Your task to perform on an android device: Open Google Chrome and click the shortcut for Amazon.com Image 0: 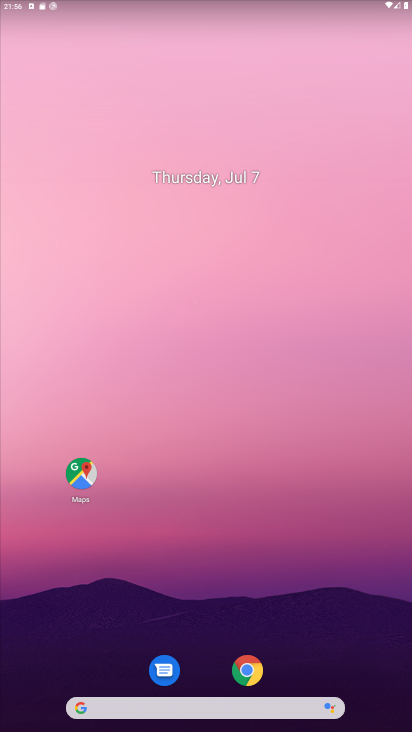
Step 0: click (255, 674)
Your task to perform on an android device: Open Google Chrome and click the shortcut for Amazon.com Image 1: 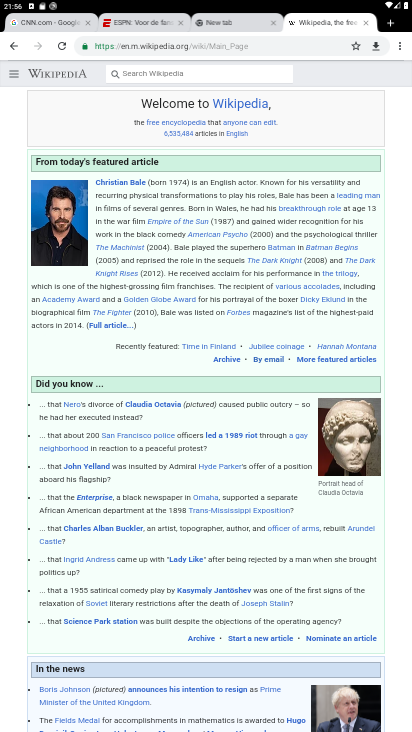
Step 1: click (364, 22)
Your task to perform on an android device: Open Google Chrome and click the shortcut for Amazon.com Image 2: 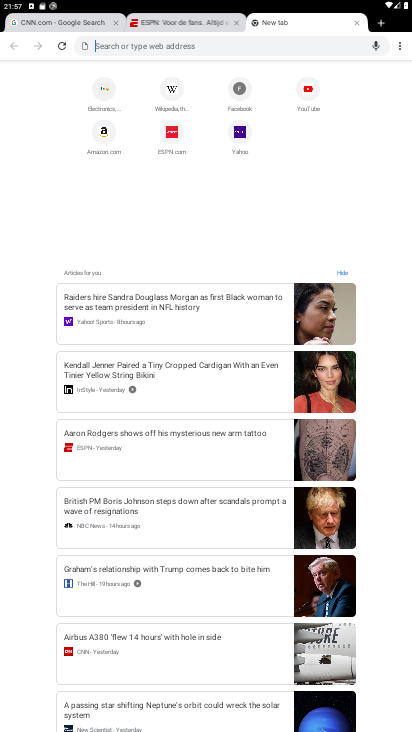
Step 2: click (115, 137)
Your task to perform on an android device: Open Google Chrome and click the shortcut for Amazon.com Image 3: 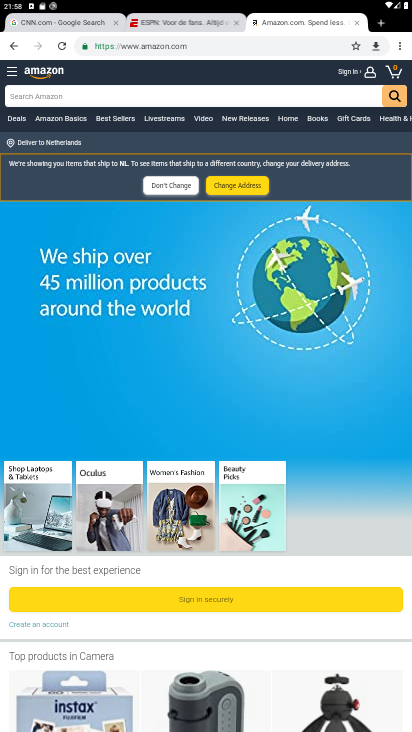
Step 3: task complete